Your task to perform on an android device: allow cookies in the chrome app Image 0: 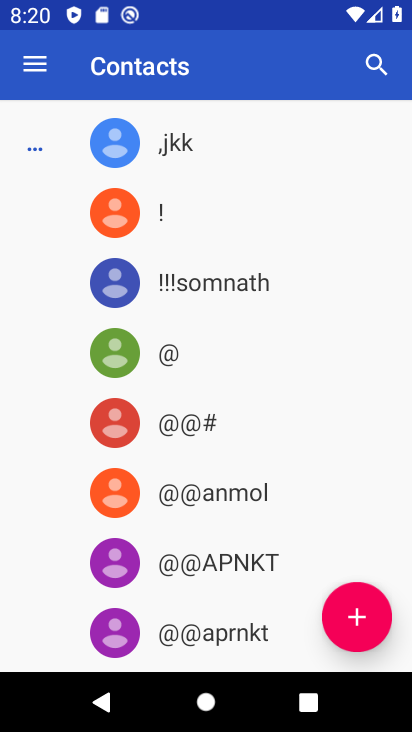
Step 0: press home button
Your task to perform on an android device: allow cookies in the chrome app Image 1: 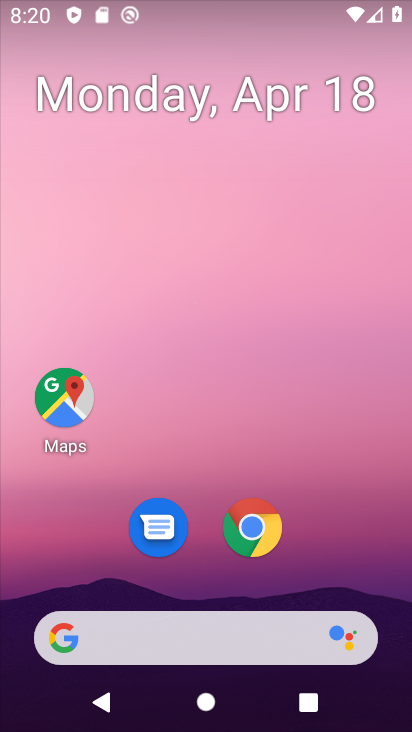
Step 1: click (255, 533)
Your task to perform on an android device: allow cookies in the chrome app Image 2: 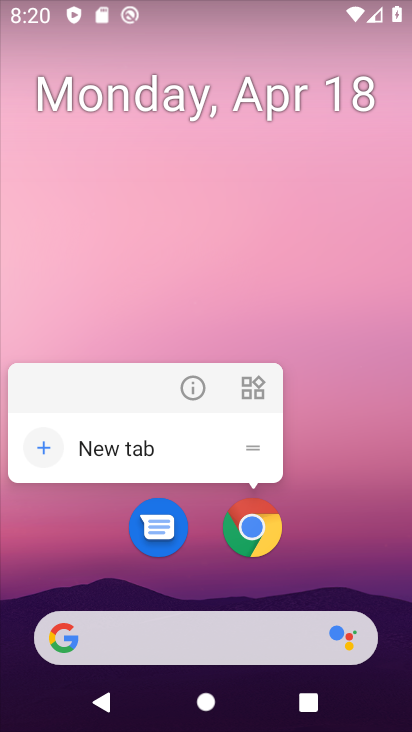
Step 2: click (269, 534)
Your task to perform on an android device: allow cookies in the chrome app Image 3: 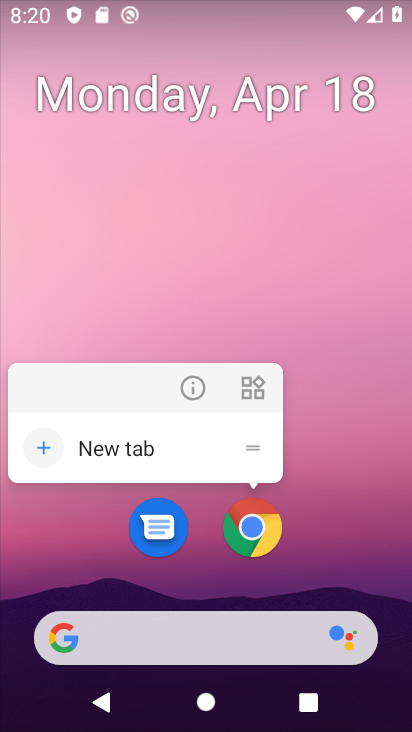
Step 3: click (269, 534)
Your task to perform on an android device: allow cookies in the chrome app Image 4: 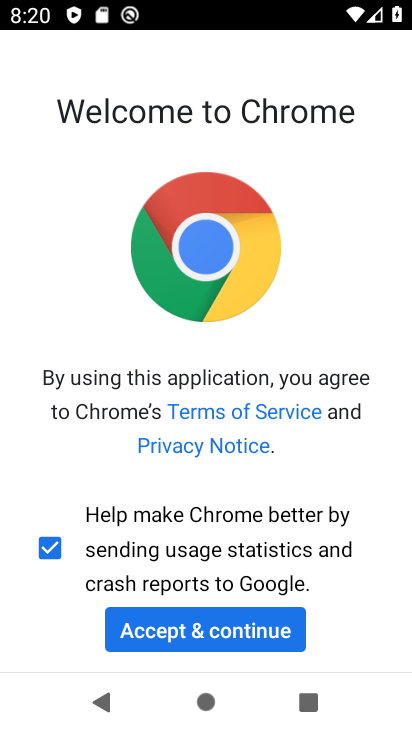
Step 4: click (237, 627)
Your task to perform on an android device: allow cookies in the chrome app Image 5: 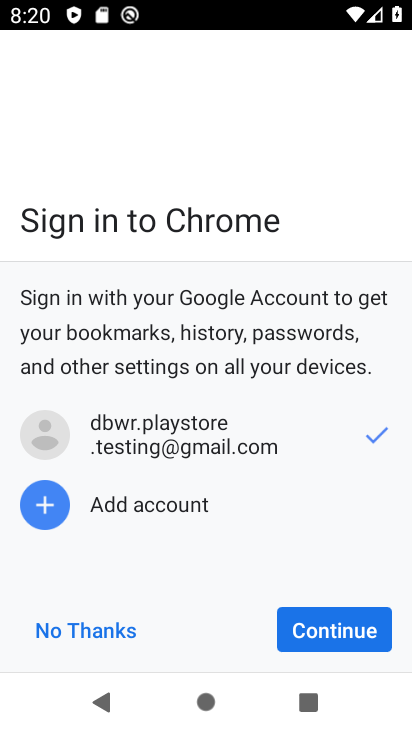
Step 5: click (319, 636)
Your task to perform on an android device: allow cookies in the chrome app Image 6: 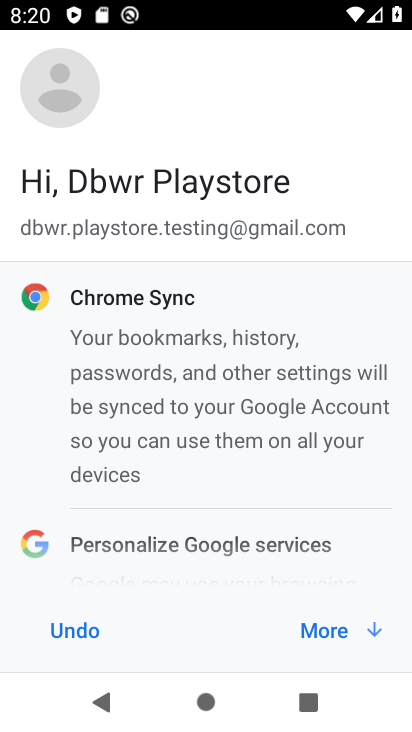
Step 6: click (319, 636)
Your task to perform on an android device: allow cookies in the chrome app Image 7: 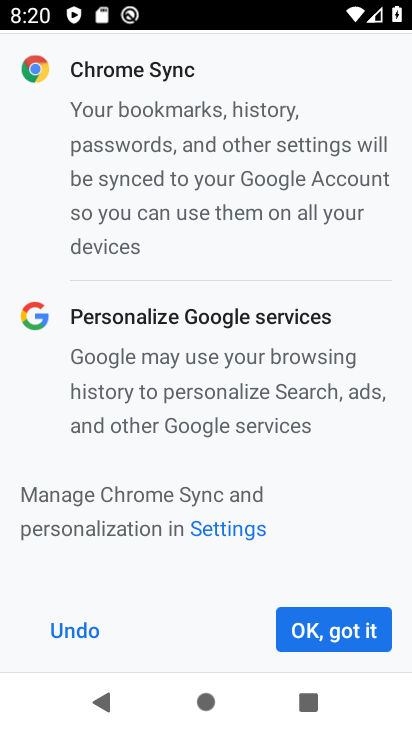
Step 7: click (319, 636)
Your task to perform on an android device: allow cookies in the chrome app Image 8: 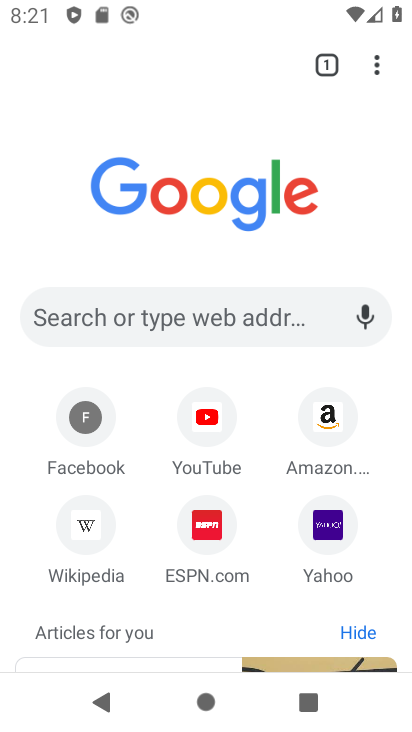
Step 8: drag from (377, 68) to (179, 548)
Your task to perform on an android device: allow cookies in the chrome app Image 9: 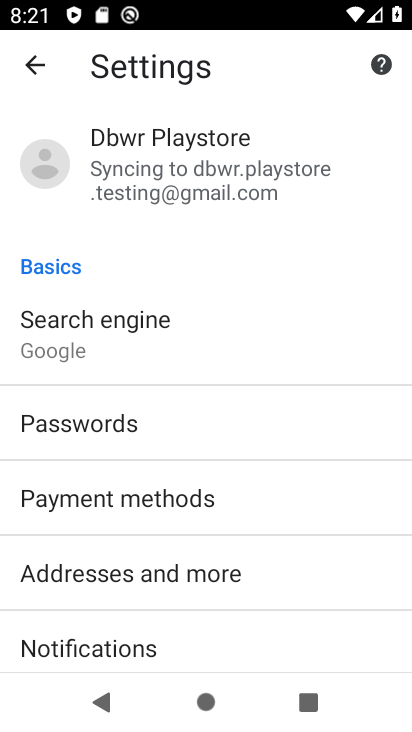
Step 9: drag from (318, 613) to (343, 159)
Your task to perform on an android device: allow cookies in the chrome app Image 10: 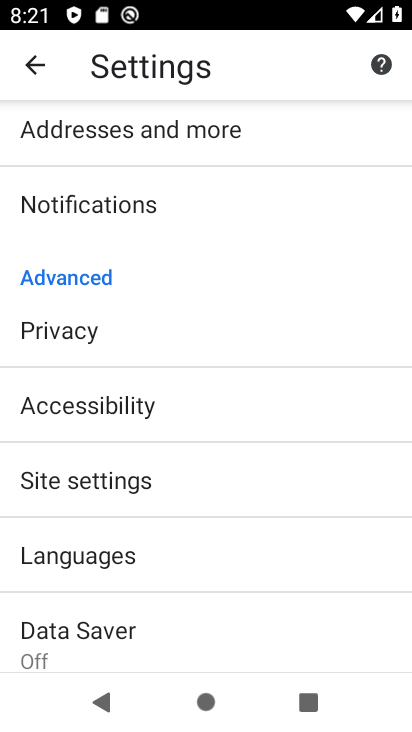
Step 10: click (59, 324)
Your task to perform on an android device: allow cookies in the chrome app Image 11: 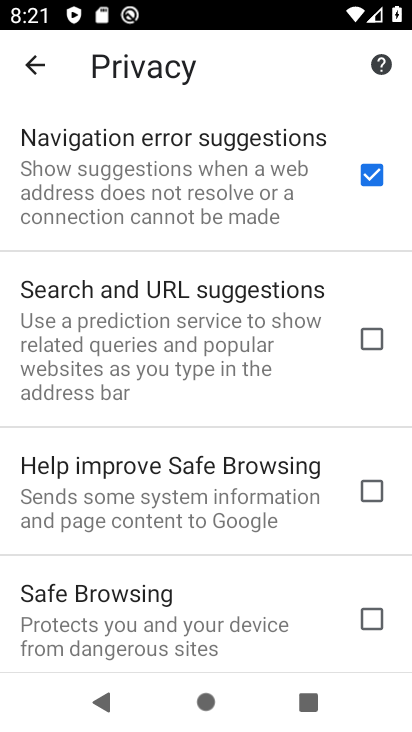
Step 11: click (43, 61)
Your task to perform on an android device: allow cookies in the chrome app Image 12: 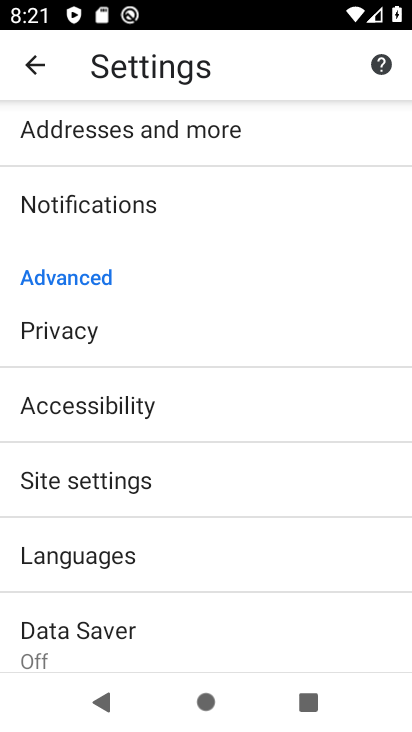
Step 12: click (130, 480)
Your task to perform on an android device: allow cookies in the chrome app Image 13: 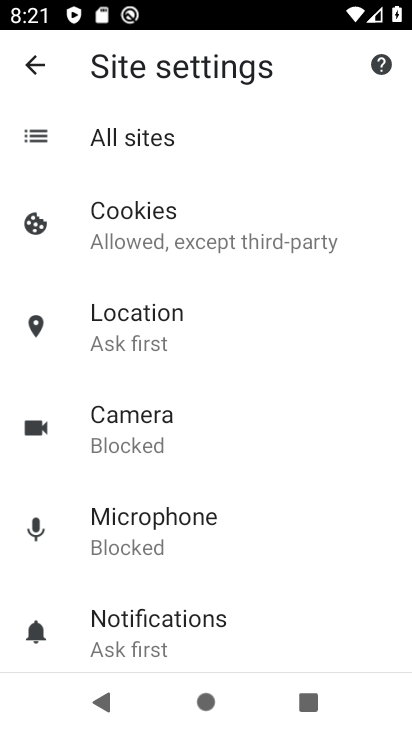
Step 13: click (148, 221)
Your task to perform on an android device: allow cookies in the chrome app Image 14: 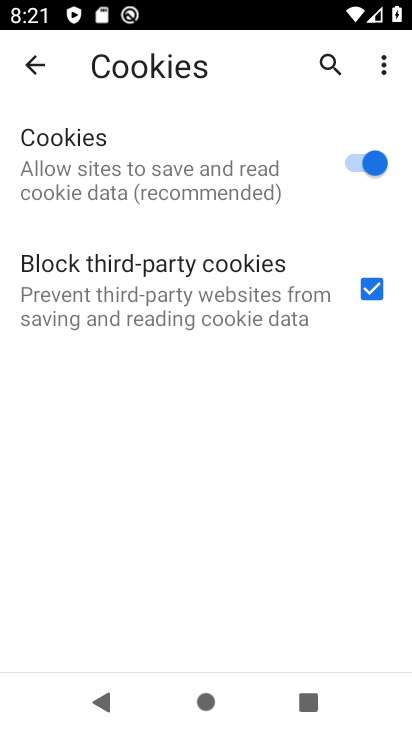
Step 14: task complete